Your task to perform on an android device: Open Google Maps Image 0: 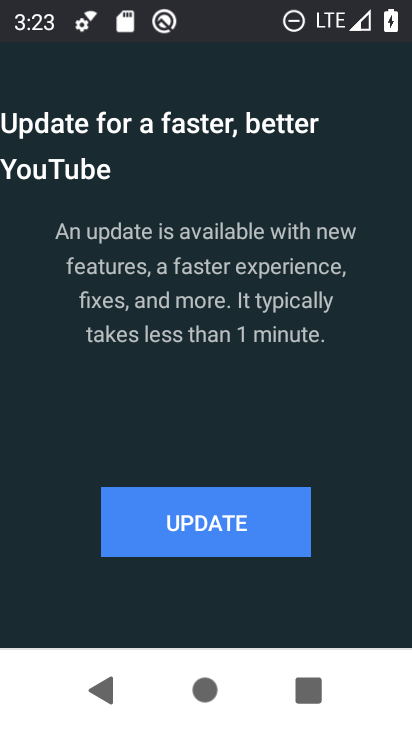
Step 0: press home button
Your task to perform on an android device: Open Google Maps Image 1: 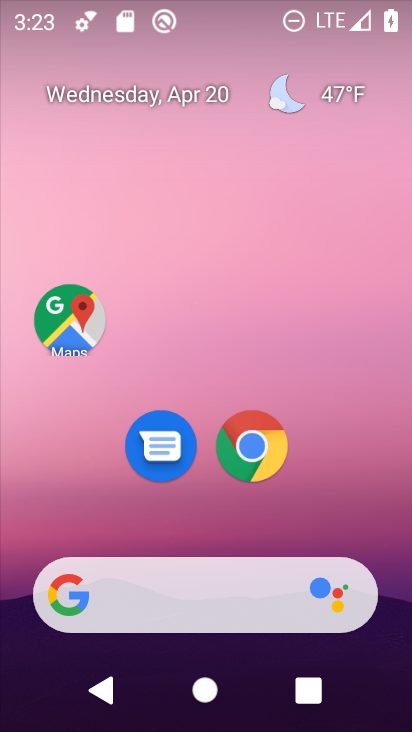
Step 1: click (71, 323)
Your task to perform on an android device: Open Google Maps Image 2: 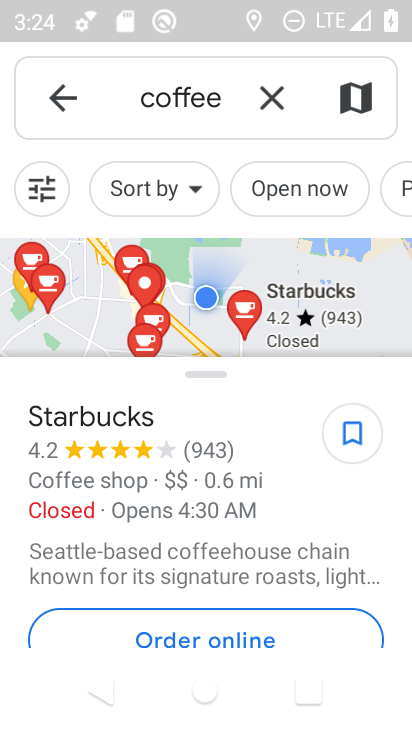
Step 2: task complete